Your task to perform on an android device: change alarm snooze length Image 0: 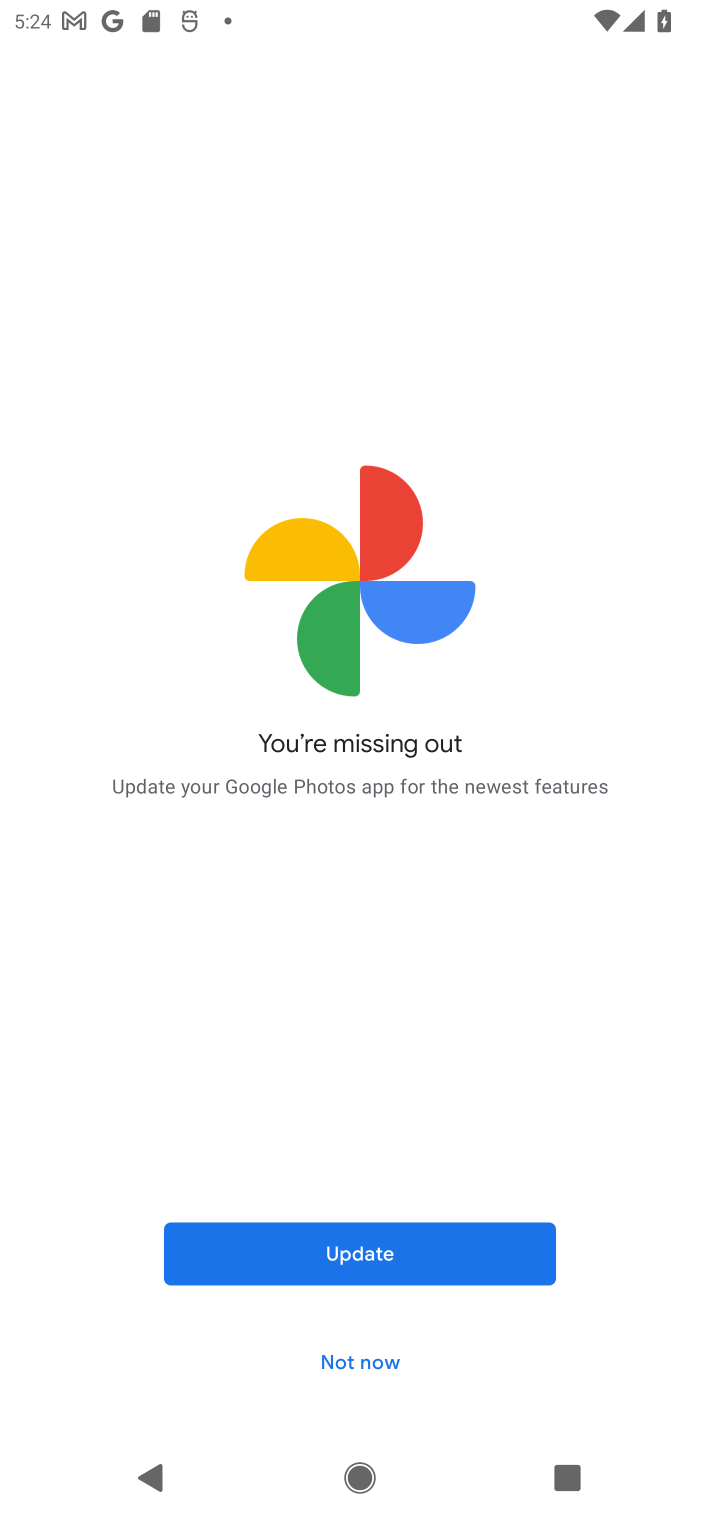
Step 0: press home button
Your task to perform on an android device: change alarm snooze length Image 1: 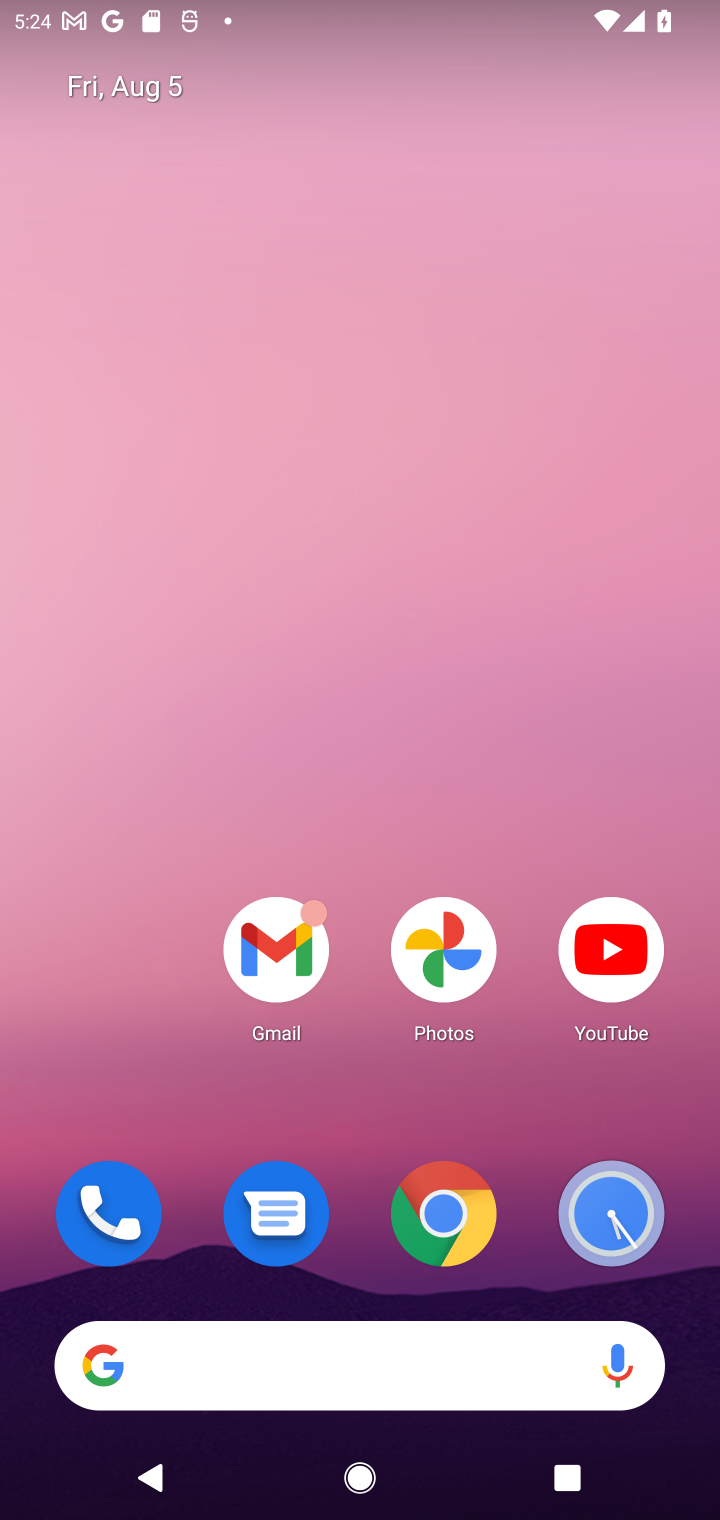
Step 1: drag from (373, 931) to (373, 680)
Your task to perform on an android device: change alarm snooze length Image 2: 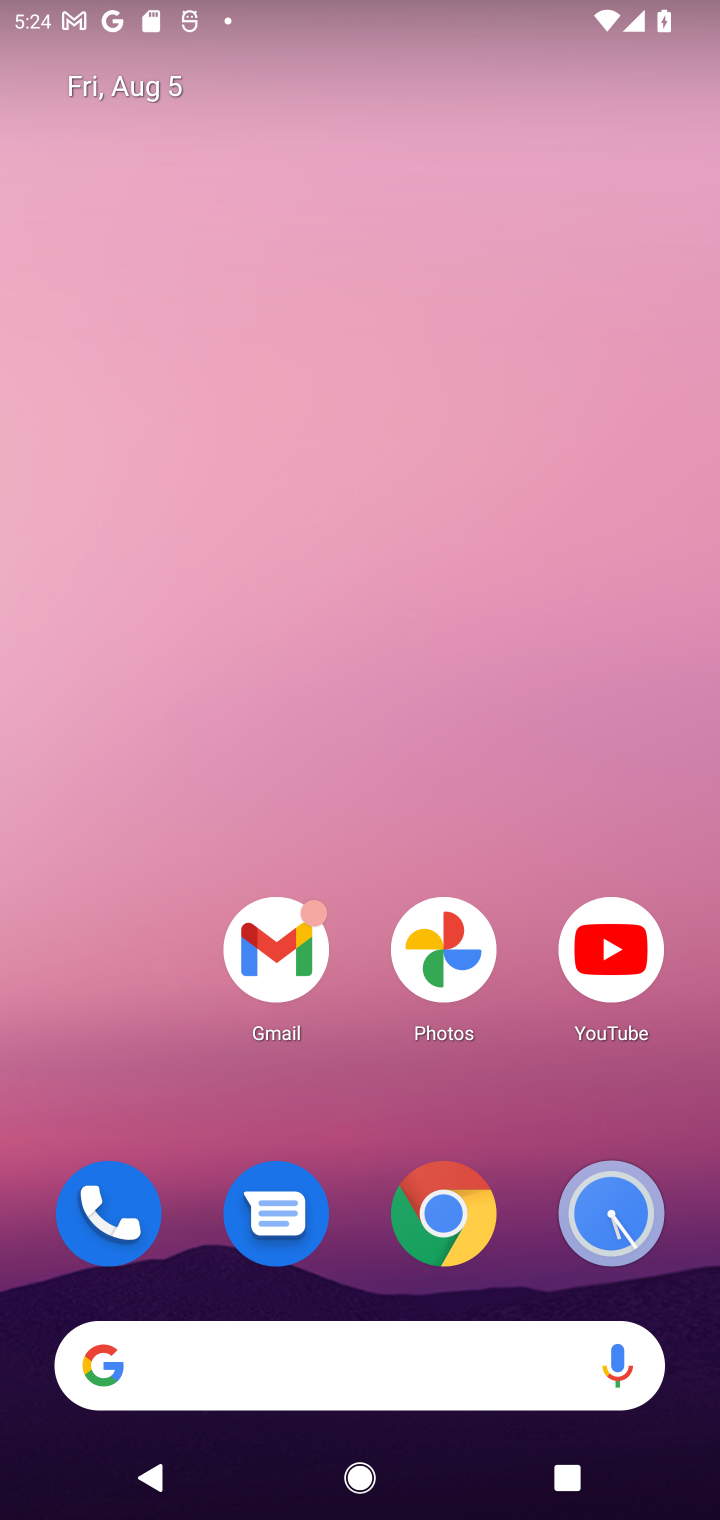
Step 2: drag from (354, 1308) to (497, 62)
Your task to perform on an android device: change alarm snooze length Image 3: 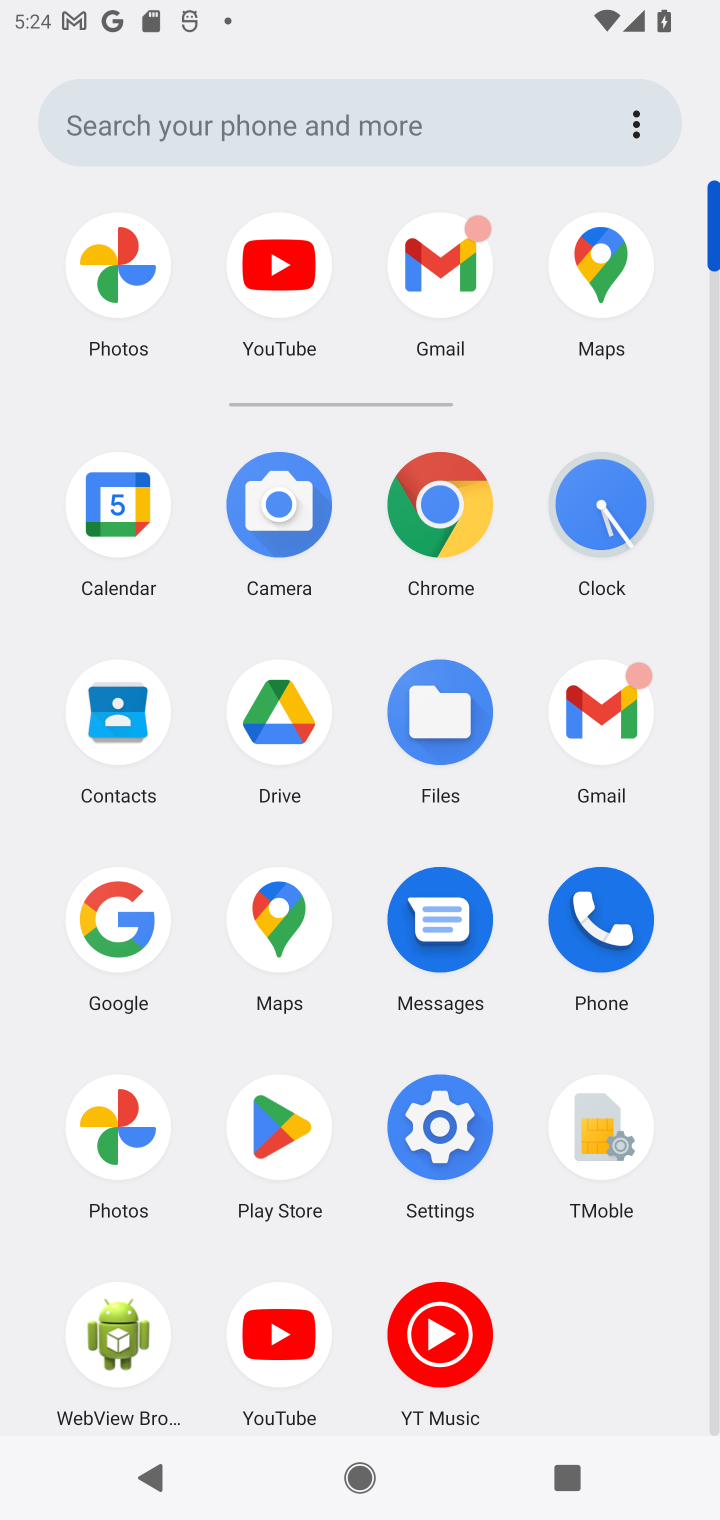
Step 3: click (618, 557)
Your task to perform on an android device: change alarm snooze length Image 4: 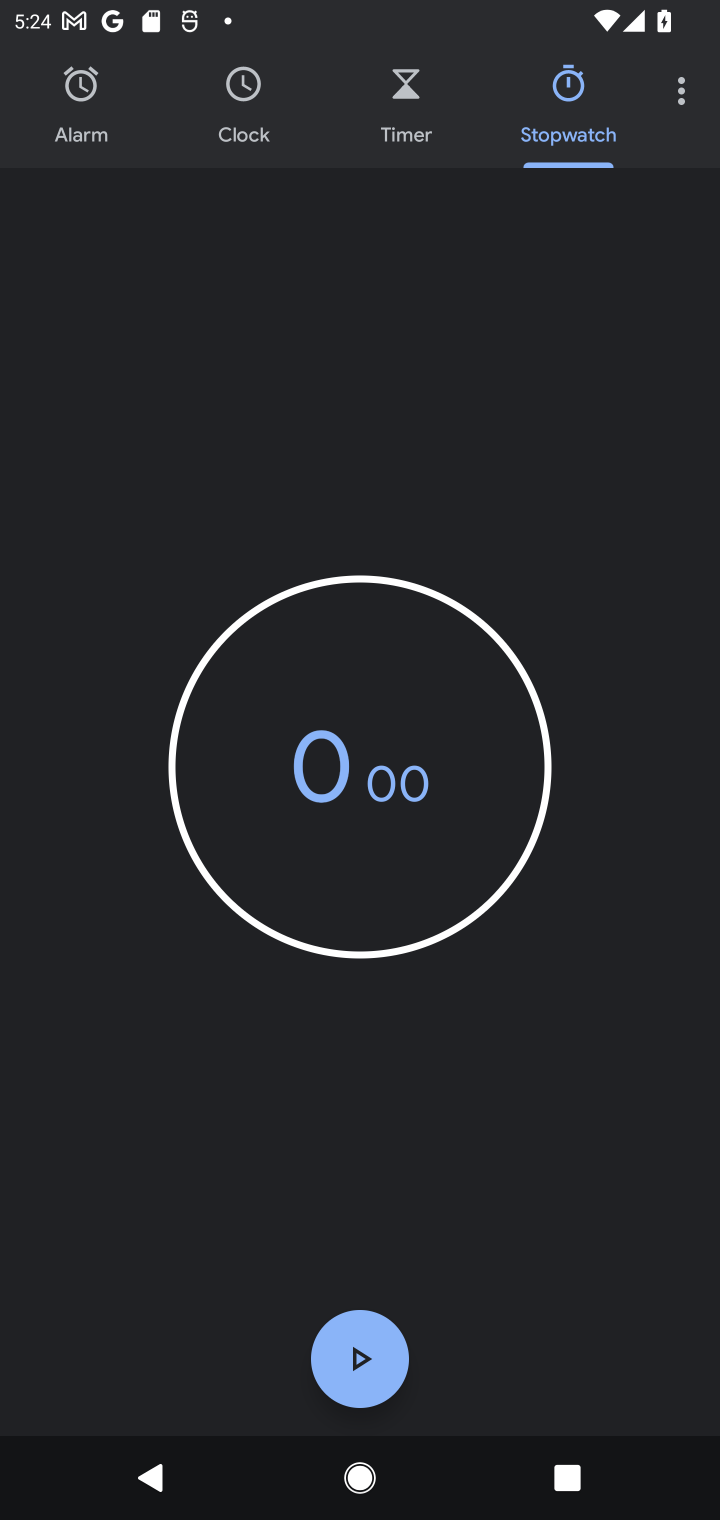
Step 4: click (655, 100)
Your task to perform on an android device: change alarm snooze length Image 5: 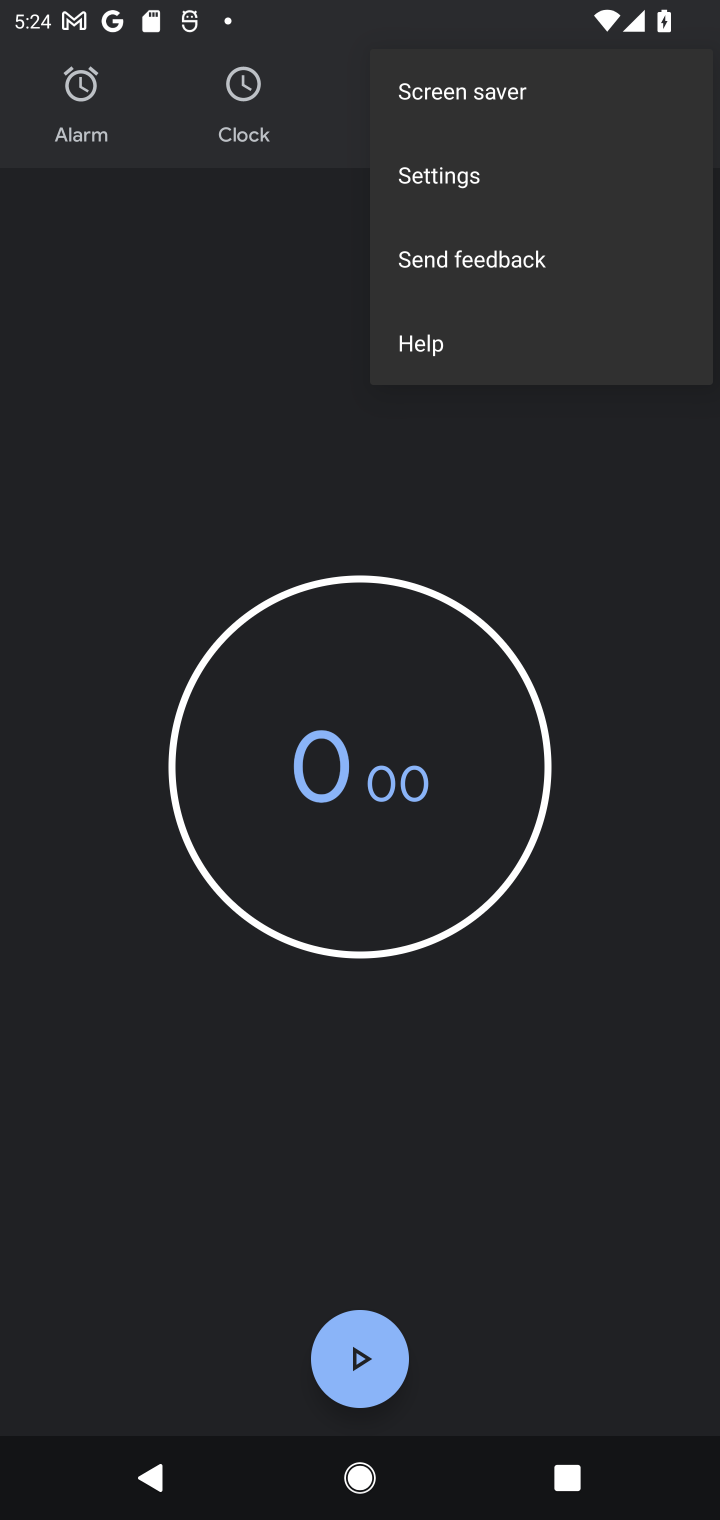
Step 5: click (536, 189)
Your task to perform on an android device: change alarm snooze length Image 6: 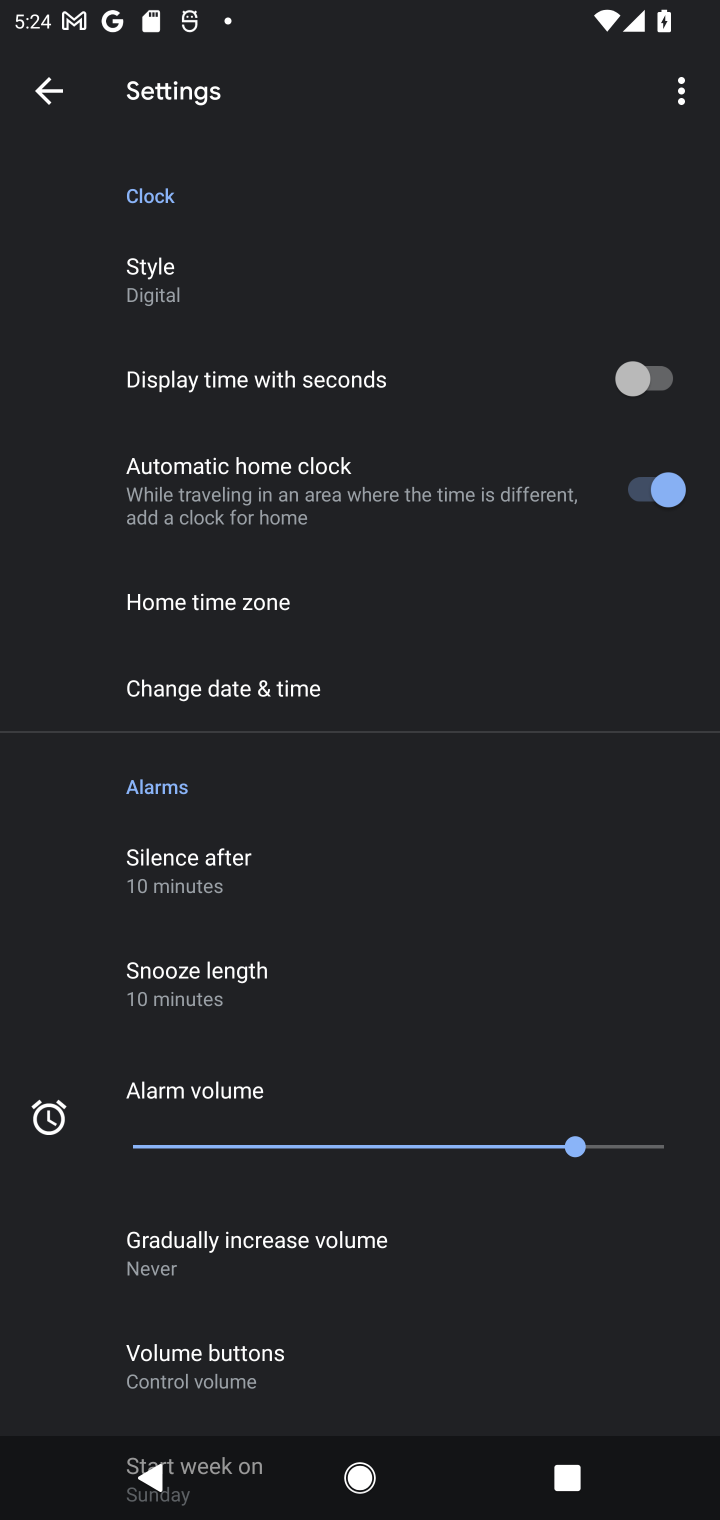
Step 6: click (432, 982)
Your task to perform on an android device: change alarm snooze length Image 7: 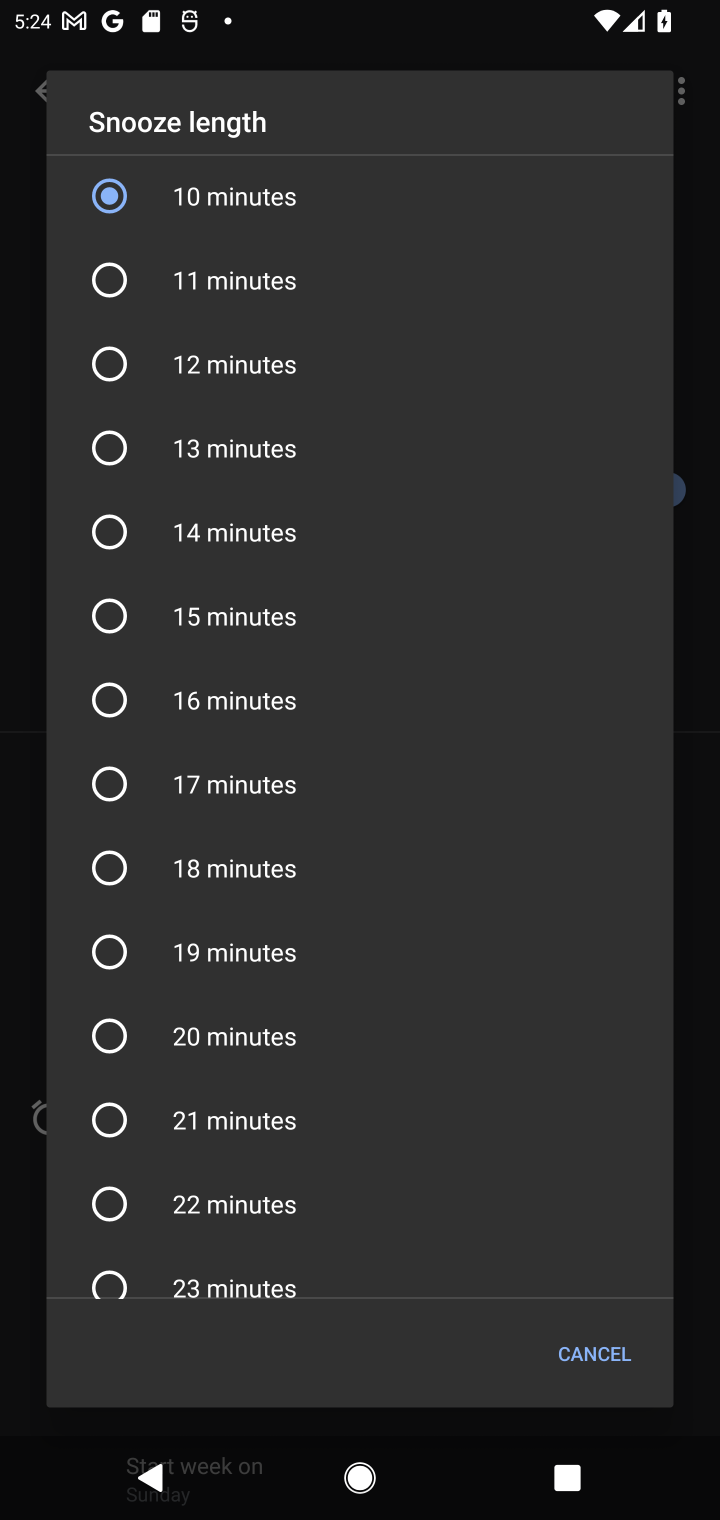
Step 7: click (432, 982)
Your task to perform on an android device: change alarm snooze length Image 8: 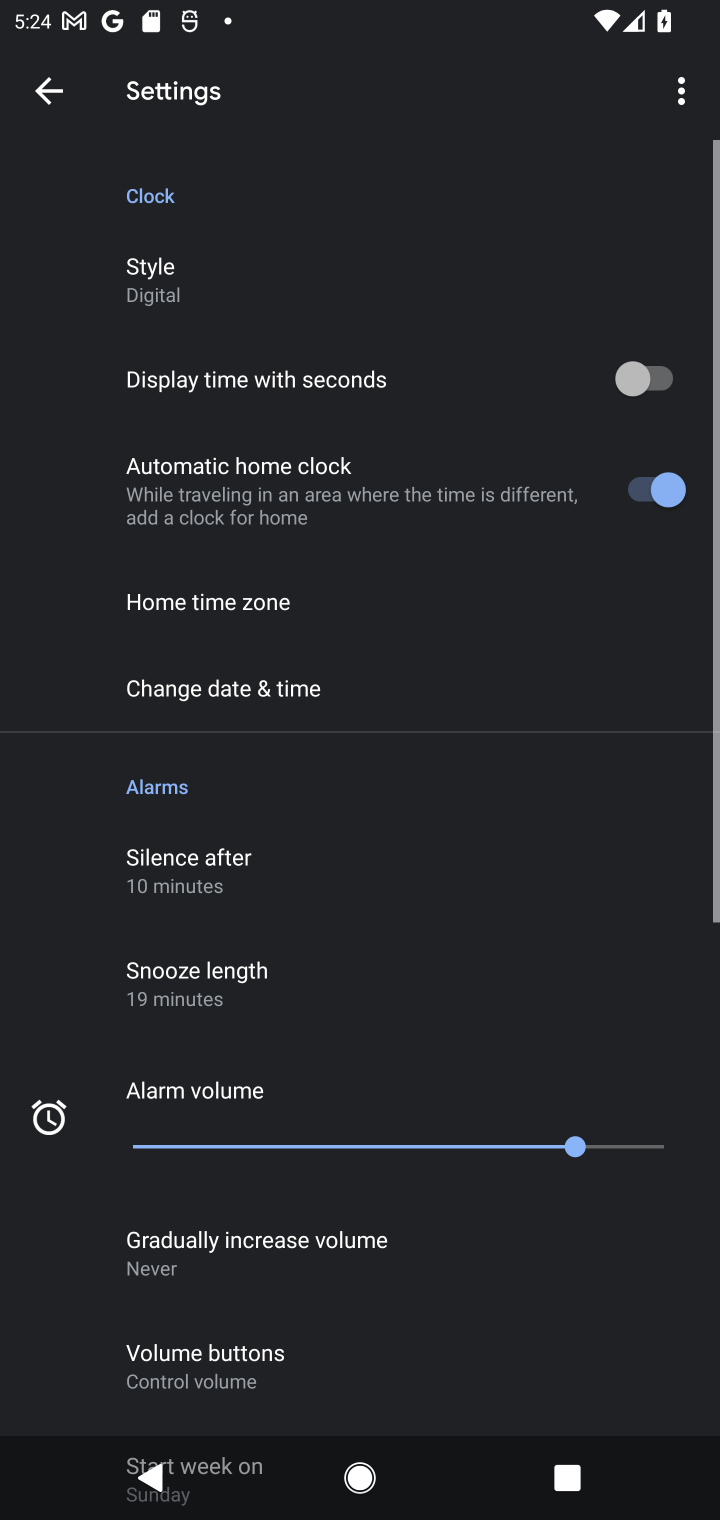
Step 8: task complete